Your task to perform on an android device: turn on the 24-hour format for clock Image 0: 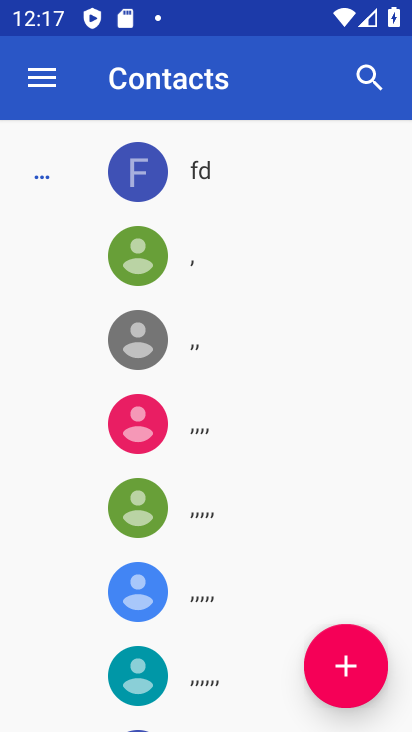
Step 0: press home button
Your task to perform on an android device: turn on the 24-hour format for clock Image 1: 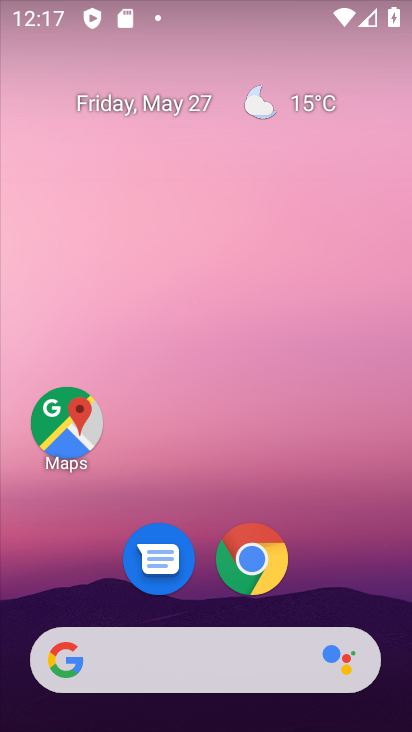
Step 1: drag from (364, 587) to (237, 11)
Your task to perform on an android device: turn on the 24-hour format for clock Image 2: 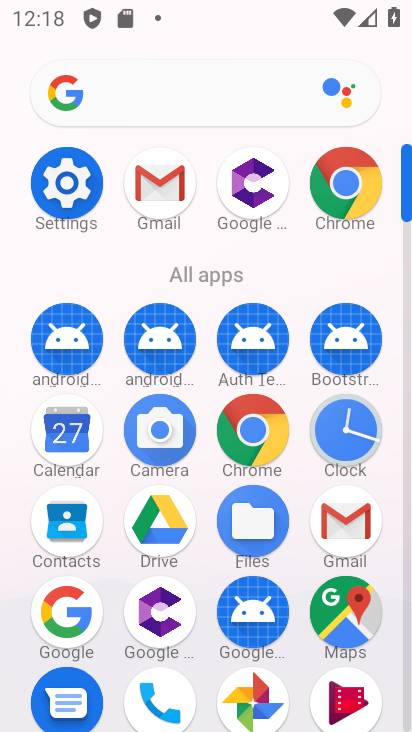
Step 2: click (338, 426)
Your task to perform on an android device: turn on the 24-hour format for clock Image 3: 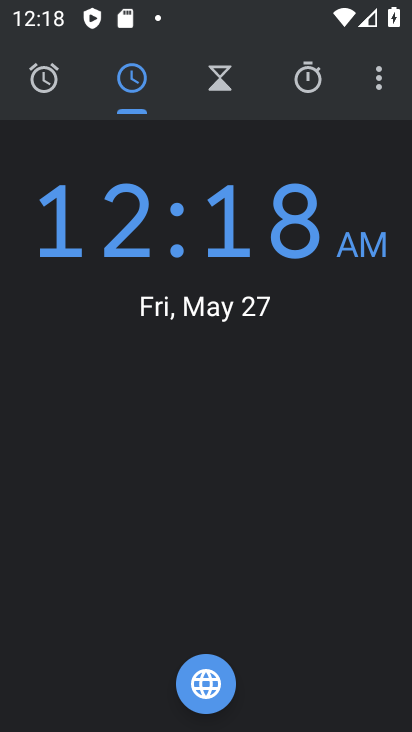
Step 3: click (377, 65)
Your task to perform on an android device: turn on the 24-hour format for clock Image 4: 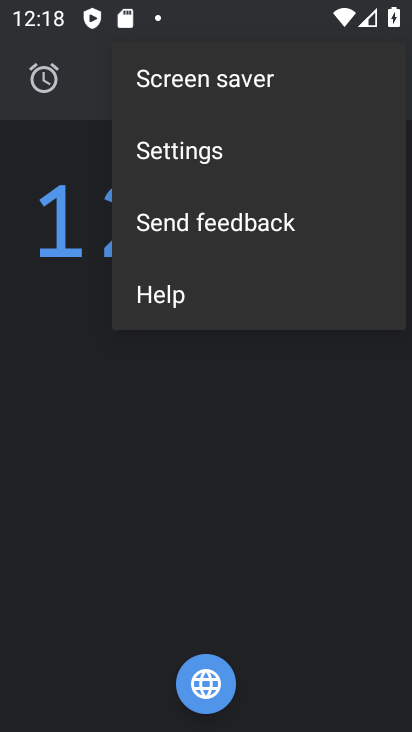
Step 4: click (229, 159)
Your task to perform on an android device: turn on the 24-hour format for clock Image 5: 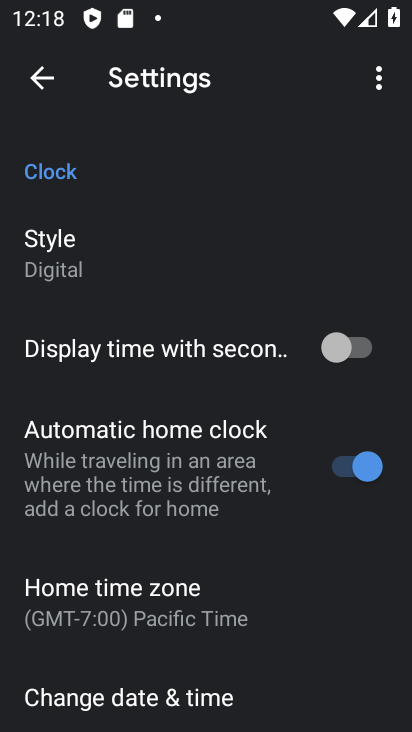
Step 5: click (194, 695)
Your task to perform on an android device: turn on the 24-hour format for clock Image 6: 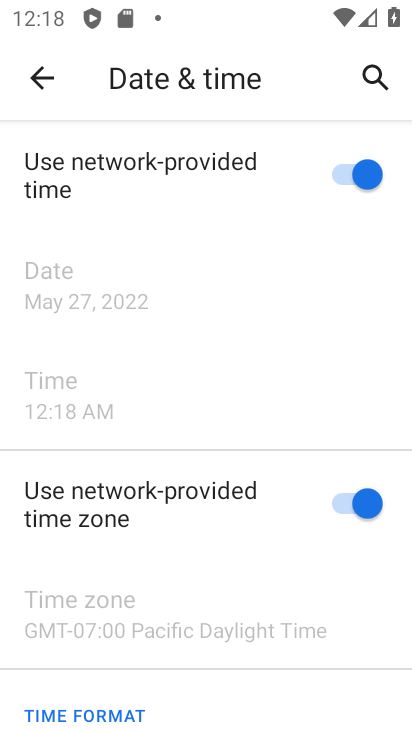
Step 6: drag from (176, 622) to (244, 113)
Your task to perform on an android device: turn on the 24-hour format for clock Image 7: 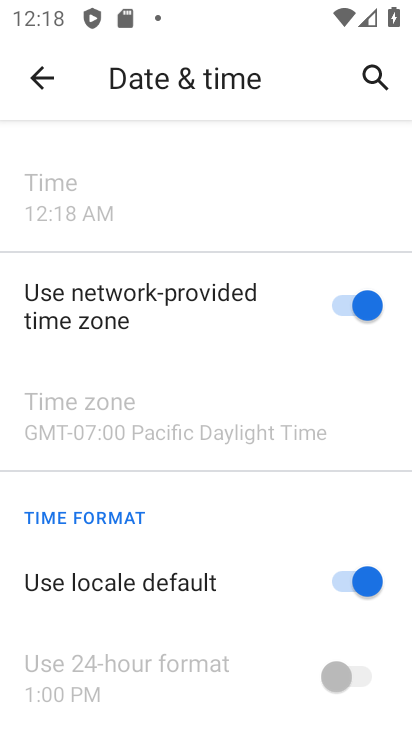
Step 7: click (351, 575)
Your task to perform on an android device: turn on the 24-hour format for clock Image 8: 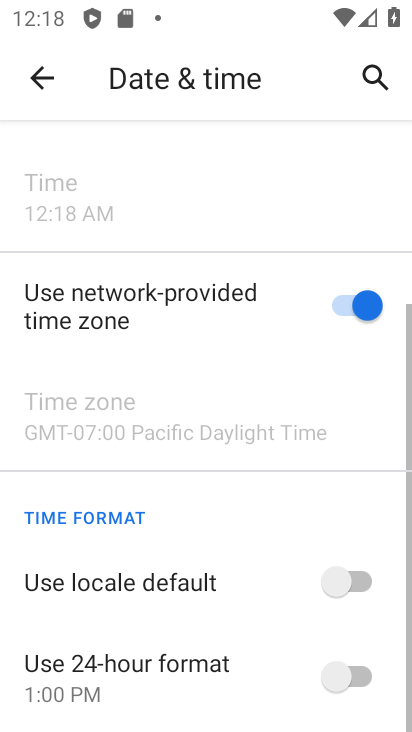
Step 8: click (345, 675)
Your task to perform on an android device: turn on the 24-hour format for clock Image 9: 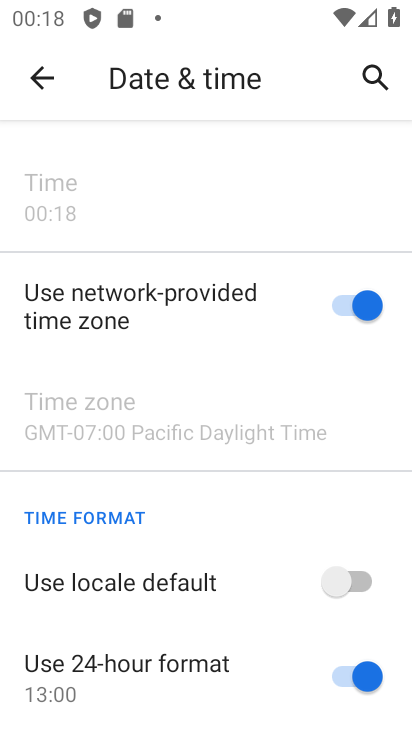
Step 9: task complete